Your task to perform on an android device: add a label to a message in the gmail app Image 0: 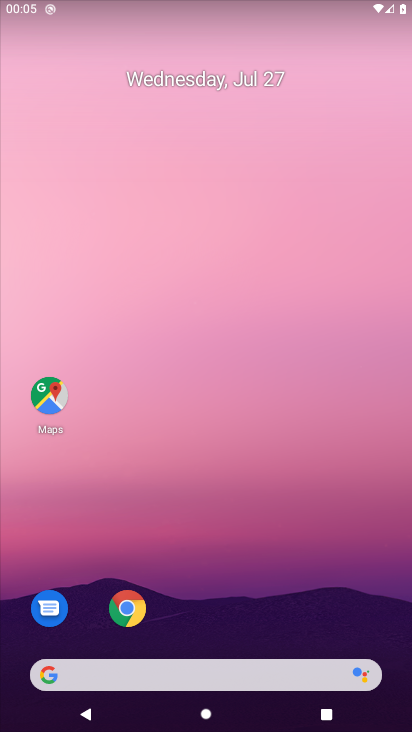
Step 0: press home button
Your task to perform on an android device: add a label to a message in the gmail app Image 1: 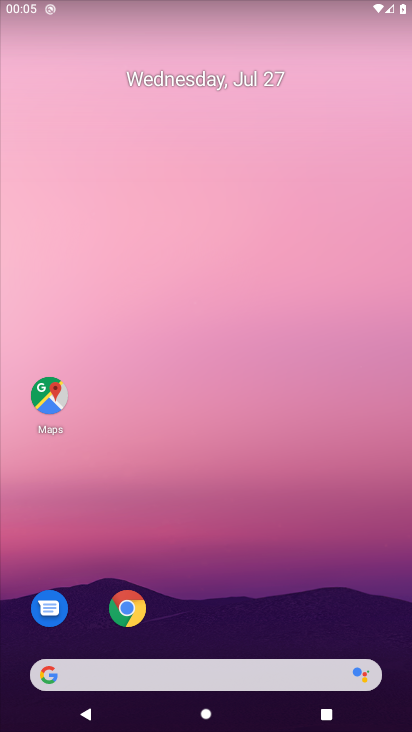
Step 1: drag from (243, 592) to (254, 201)
Your task to perform on an android device: add a label to a message in the gmail app Image 2: 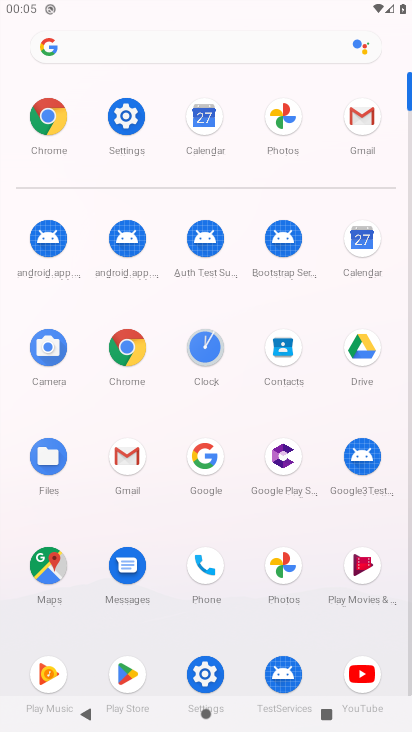
Step 2: click (367, 111)
Your task to perform on an android device: add a label to a message in the gmail app Image 3: 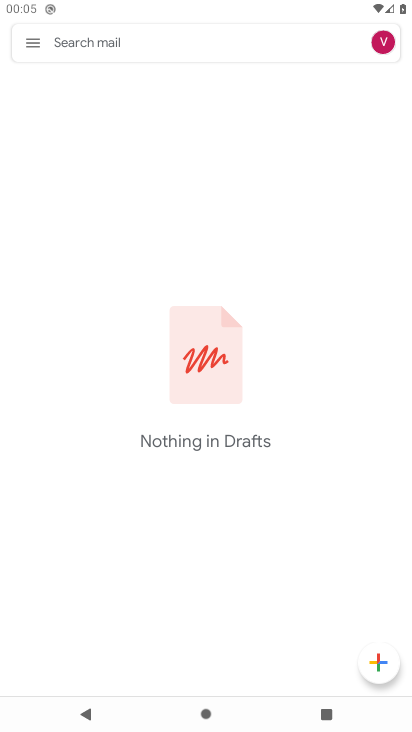
Step 3: click (35, 40)
Your task to perform on an android device: add a label to a message in the gmail app Image 4: 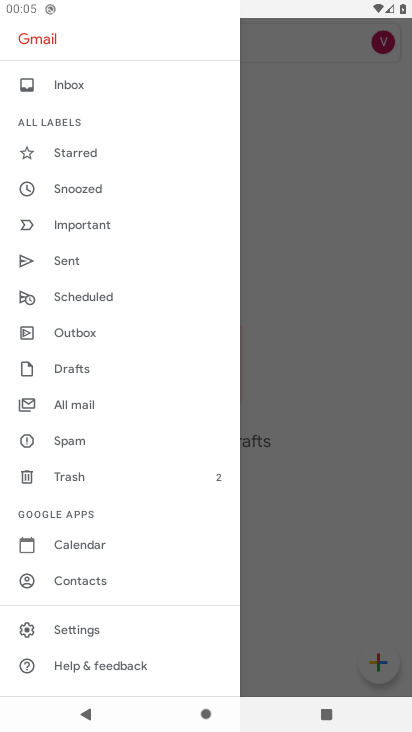
Step 4: click (58, 408)
Your task to perform on an android device: add a label to a message in the gmail app Image 5: 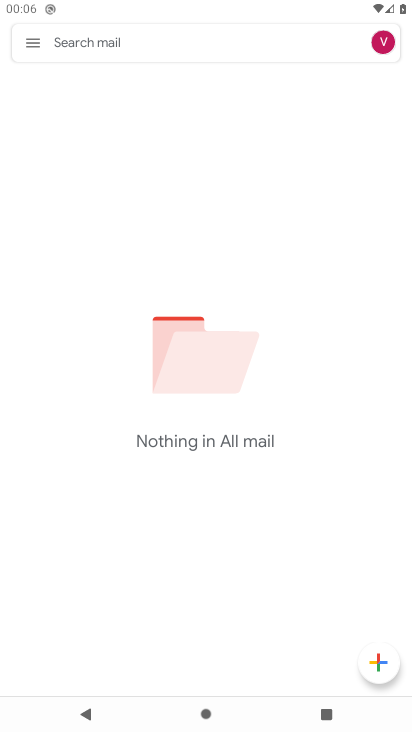
Step 5: task complete